Your task to perform on an android device: set the stopwatch Image 0: 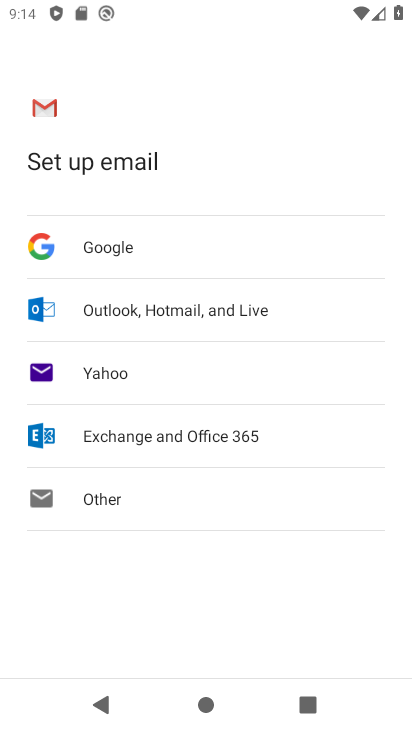
Step 0: press back button
Your task to perform on an android device: set the stopwatch Image 1: 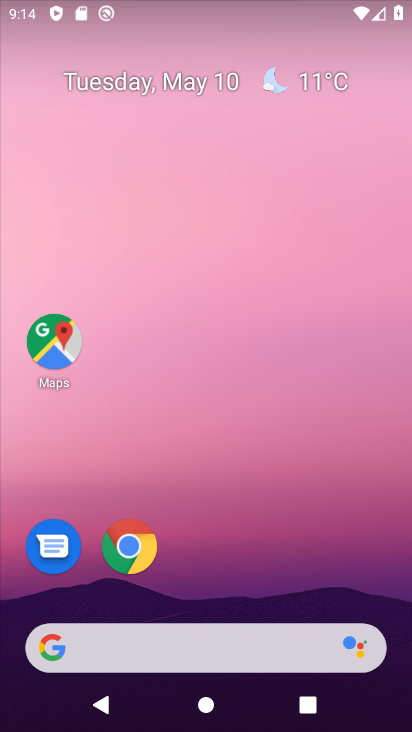
Step 1: drag from (291, 579) to (328, 30)
Your task to perform on an android device: set the stopwatch Image 2: 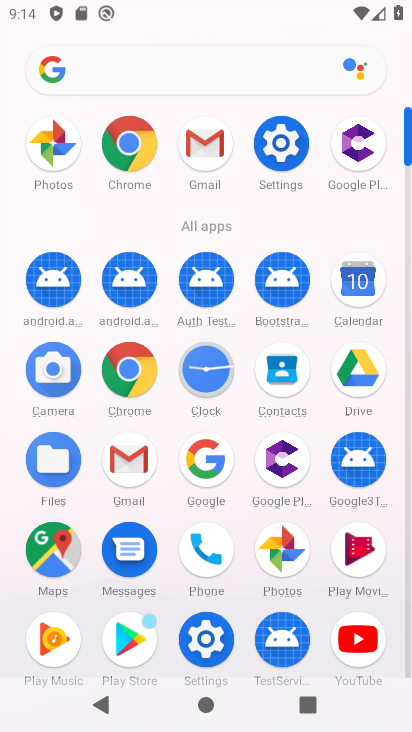
Step 2: click (192, 370)
Your task to perform on an android device: set the stopwatch Image 3: 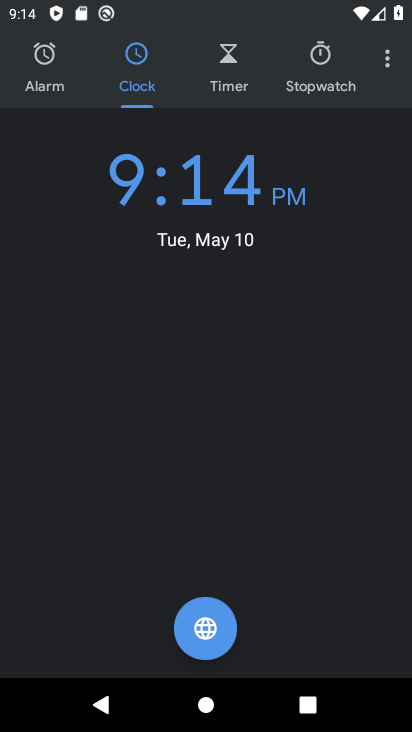
Step 3: click (301, 56)
Your task to perform on an android device: set the stopwatch Image 4: 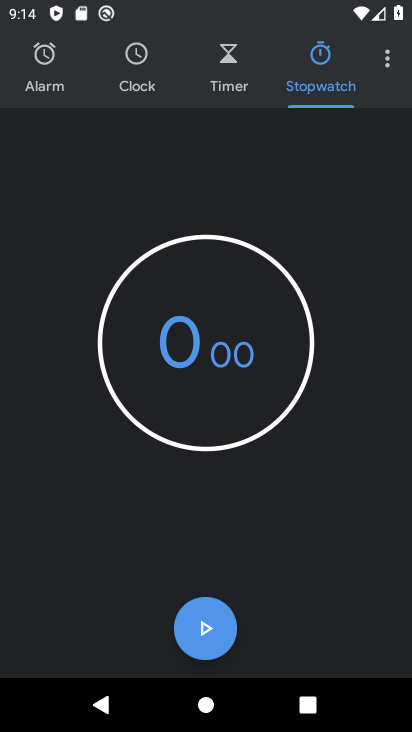
Step 4: click (193, 357)
Your task to perform on an android device: set the stopwatch Image 5: 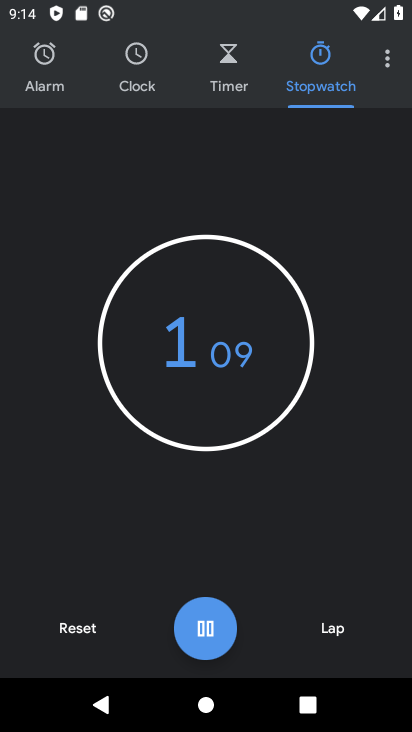
Step 5: click (193, 357)
Your task to perform on an android device: set the stopwatch Image 6: 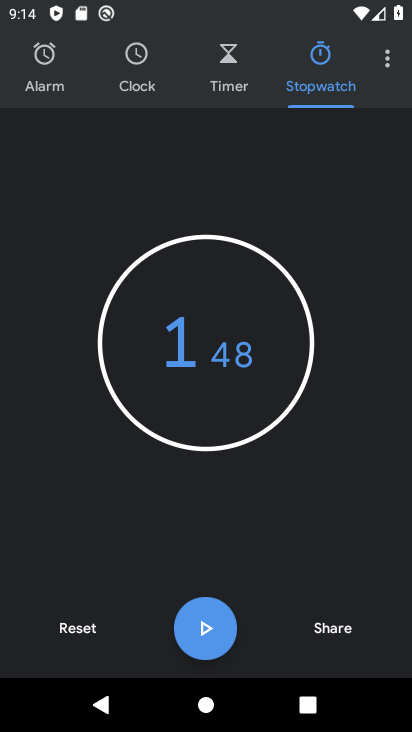
Step 6: task complete